Your task to perform on an android device: Open Google Chrome and open the bookmarks view Image 0: 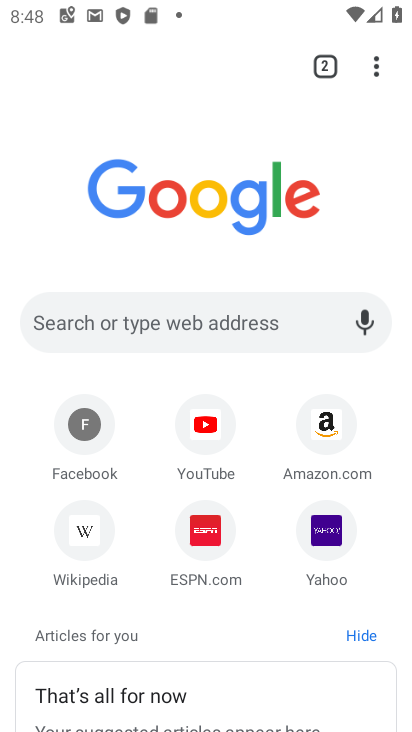
Step 0: press home button
Your task to perform on an android device: Open Google Chrome and open the bookmarks view Image 1: 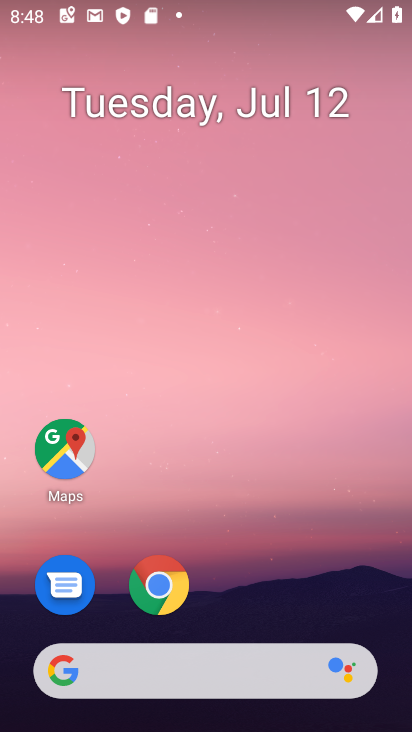
Step 1: drag from (242, 549) to (259, 36)
Your task to perform on an android device: Open Google Chrome and open the bookmarks view Image 2: 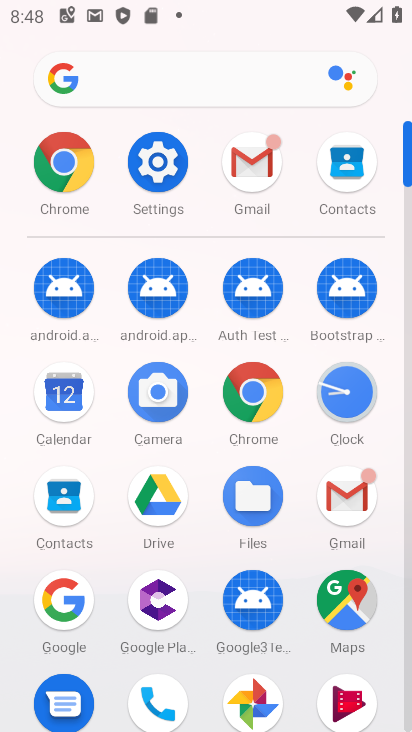
Step 2: click (76, 169)
Your task to perform on an android device: Open Google Chrome and open the bookmarks view Image 3: 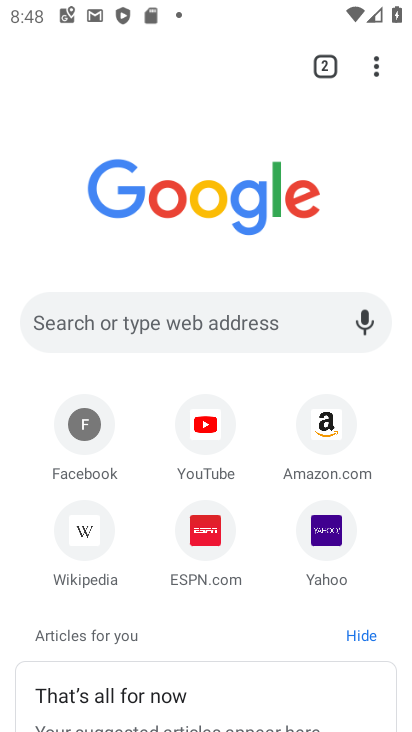
Step 3: click (374, 65)
Your task to perform on an android device: Open Google Chrome and open the bookmarks view Image 4: 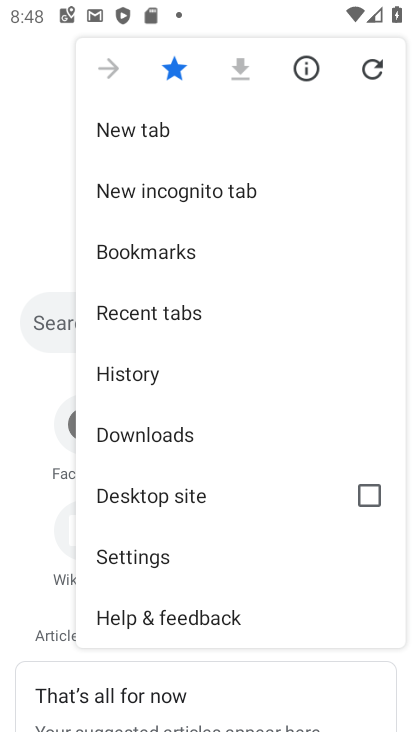
Step 4: click (172, 244)
Your task to perform on an android device: Open Google Chrome and open the bookmarks view Image 5: 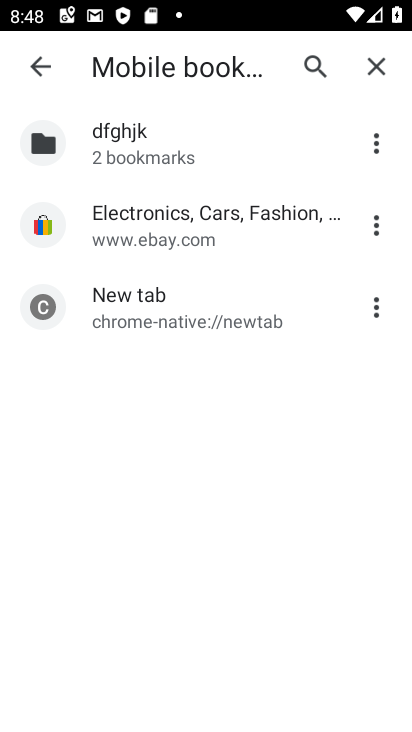
Step 5: task complete